Your task to perform on an android device: Open network settings Image 0: 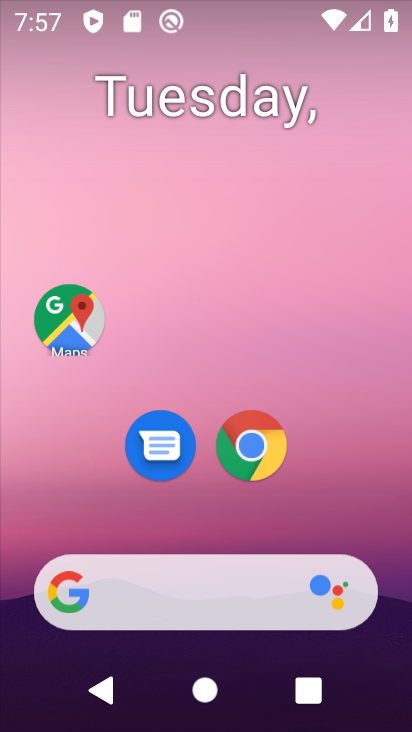
Step 0: drag from (151, 548) to (149, 187)
Your task to perform on an android device: Open network settings Image 1: 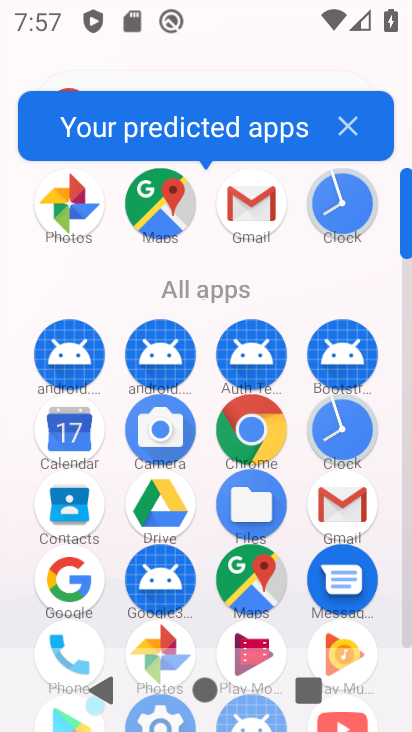
Step 1: drag from (240, 617) to (239, 258)
Your task to perform on an android device: Open network settings Image 2: 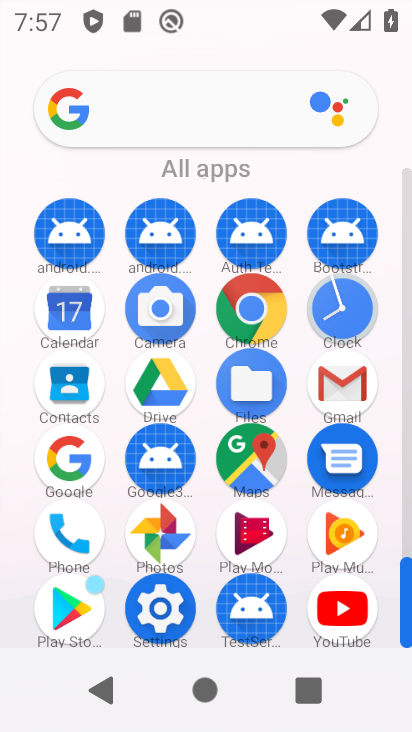
Step 2: click (161, 606)
Your task to perform on an android device: Open network settings Image 3: 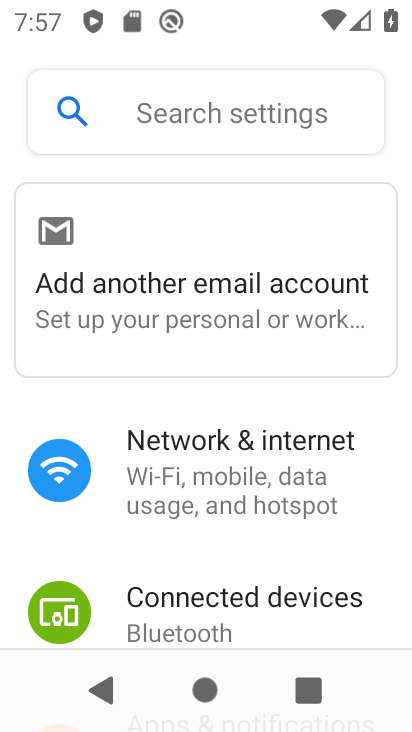
Step 3: click (260, 458)
Your task to perform on an android device: Open network settings Image 4: 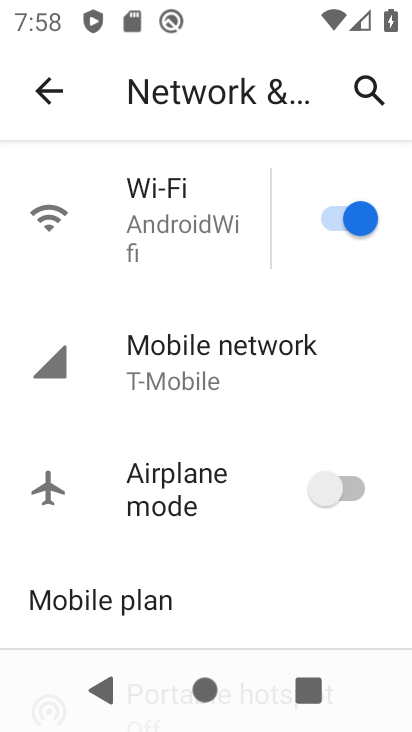
Step 4: drag from (160, 609) to (226, 240)
Your task to perform on an android device: Open network settings Image 5: 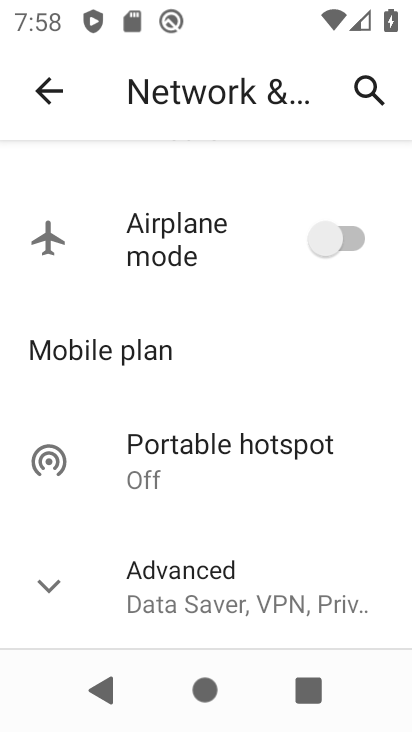
Step 5: click (192, 593)
Your task to perform on an android device: Open network settings Image 6: 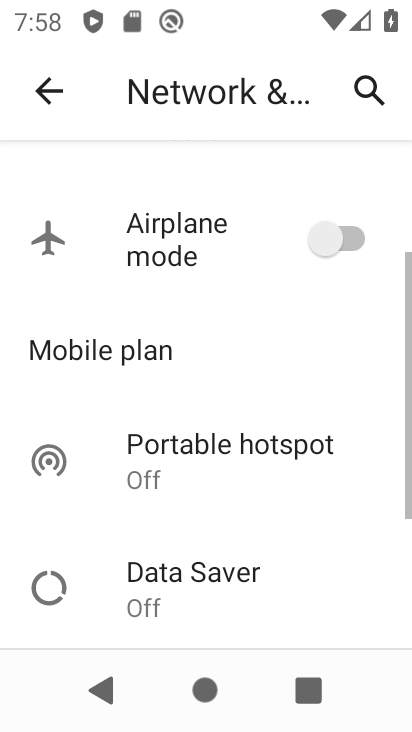
Step 6: task complete